Your task to perform on an android device: toggle location history Image 0: 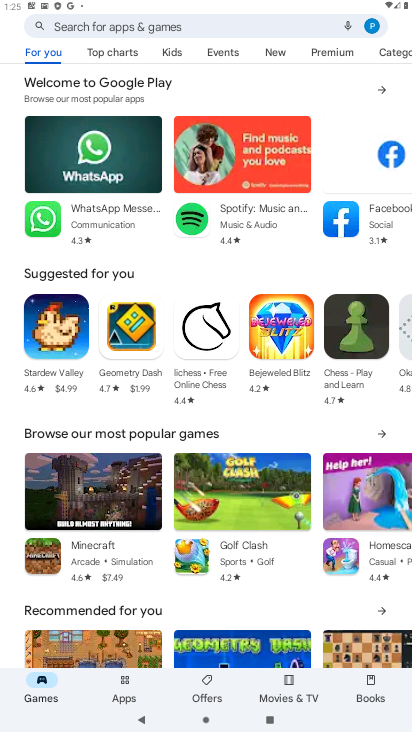
Step 0: press home button
Your task to perform on an android device: toggle location history Image 1: 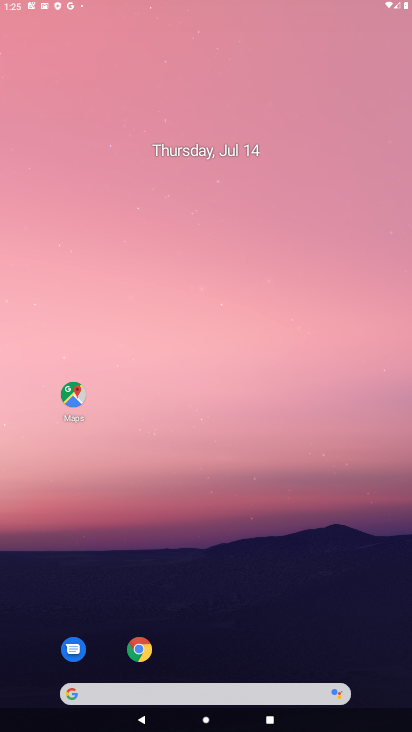
Step 1: drag from (399, 656) to (253, 56)
Your task to perform on an android device: toggle location history Image 2: 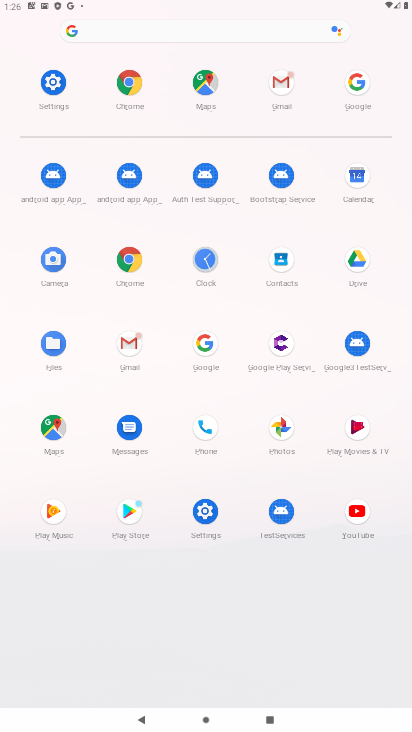
Step 2: click (205, 526)
Your task to perform on an android device: toggle location history Image 3: 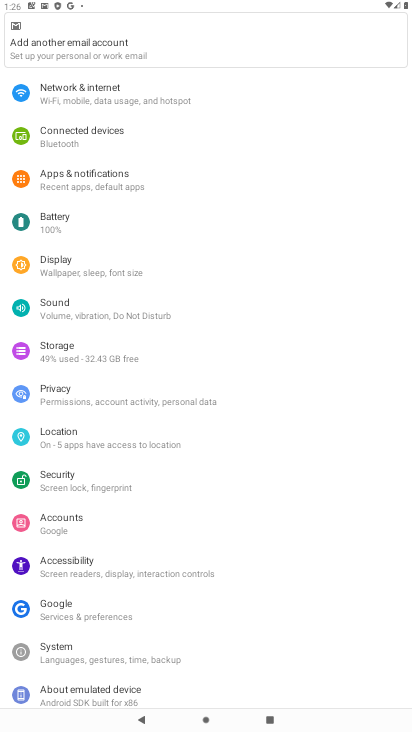
Step 3: click (137, 441)
Your task to perform on an android device: toggle location history Image 4: 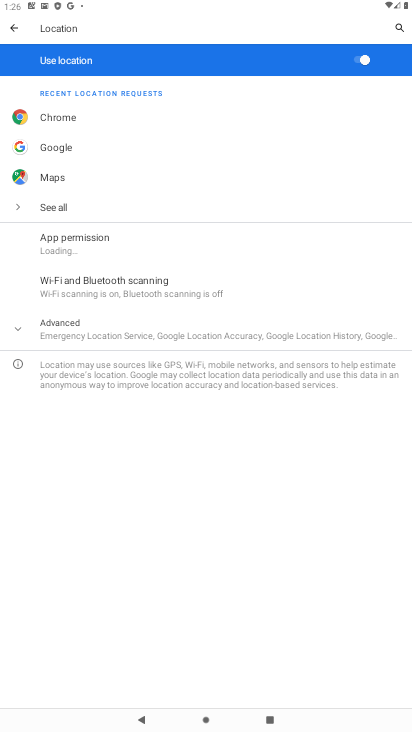
Step 4: click (91, 333)
Your task to perform on an android device: toggle location history Image 5: 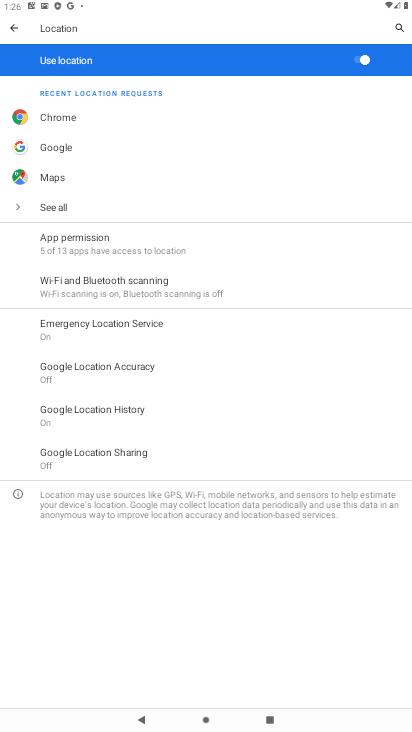
Step 5: click (138, 403)
Your task to perform on an android device: toggle location history Image 6: 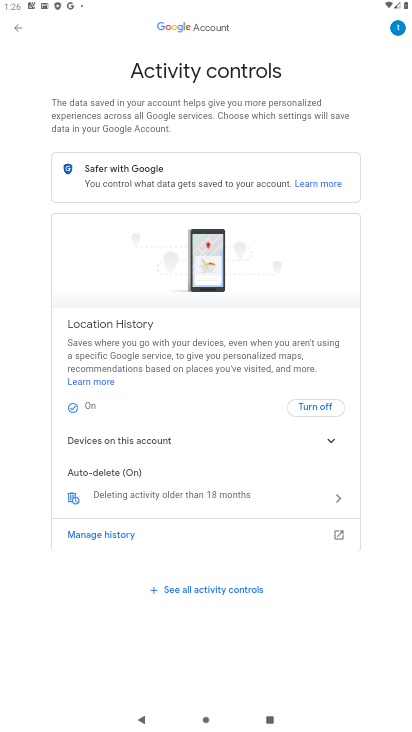
Step 6: click (314, 403)
Your task to perform on an android device: toggle location history Image 7: 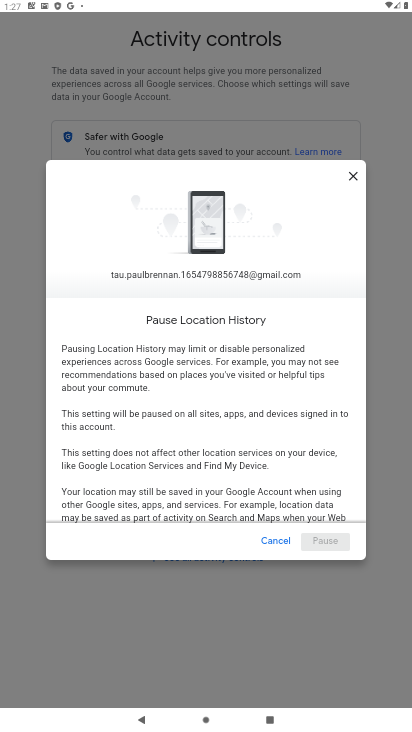
Step 7: task complete